Your task to perform on an android device: empty trash in google photos Image 0: 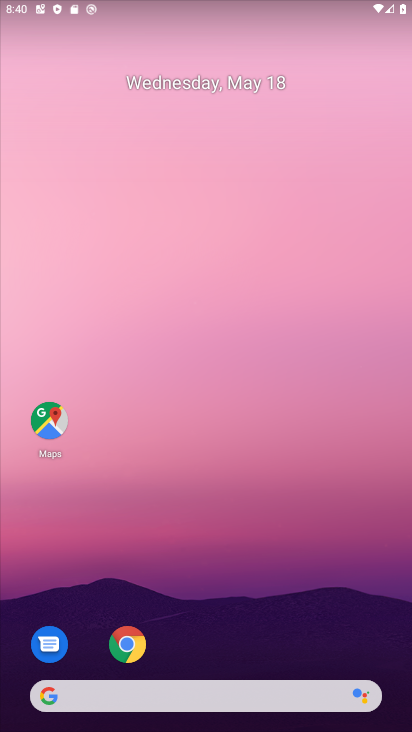
Step 0: drag from (191, 400) to (237, 59)
Your task to perform on an android device: empty trash in google photos Image 1: 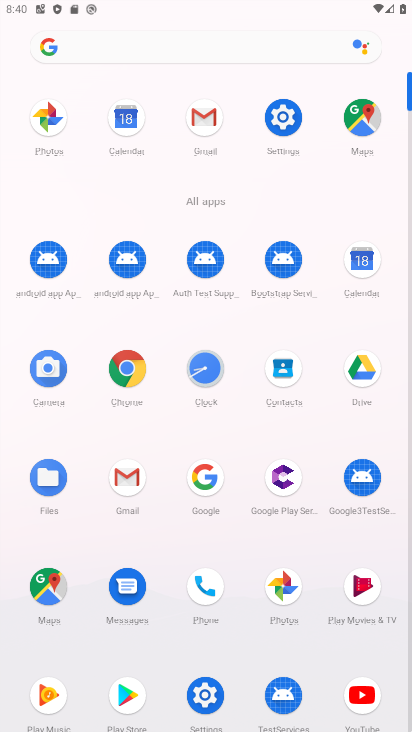
Step 1: click (55, 118)
Your task to perform on an android device: empty trash in google photos Image 2: 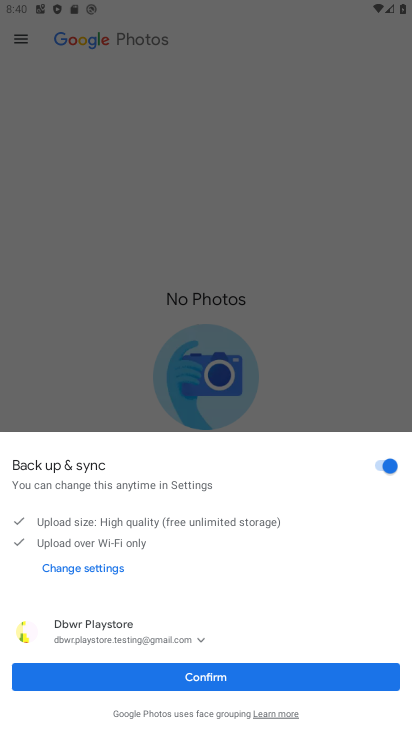
Step 2: click (177, 671)
Your task to perform on an android device: empty trash in google photos Image 3: 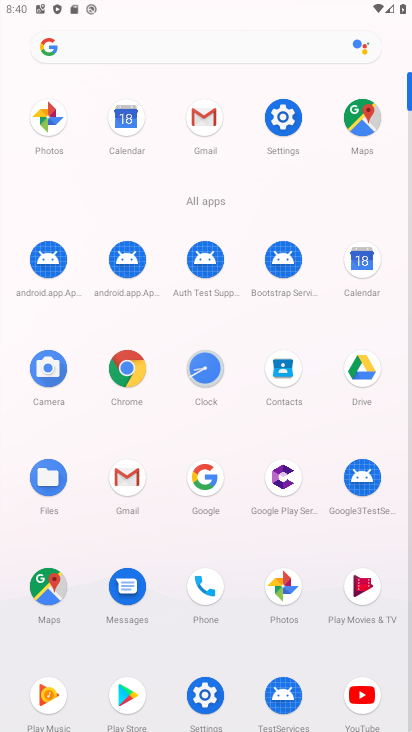
Step 3: click (47, 128)
Your task to perform on an android device: empty trash in google photos Image 4: 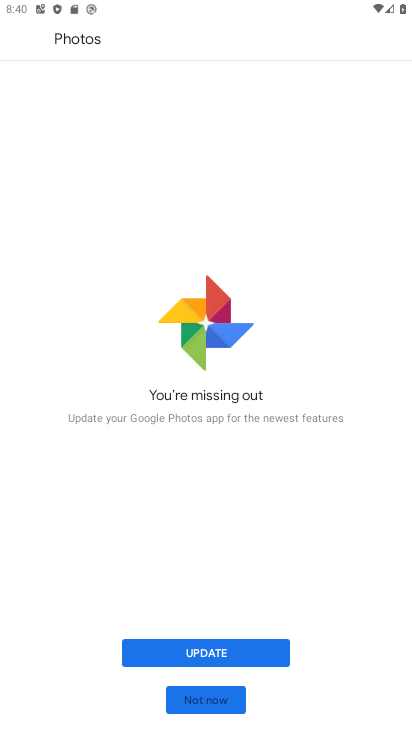
Step 4: click (216, 647)
Your task to perform on an android device: empty trash in google photos Image 5: 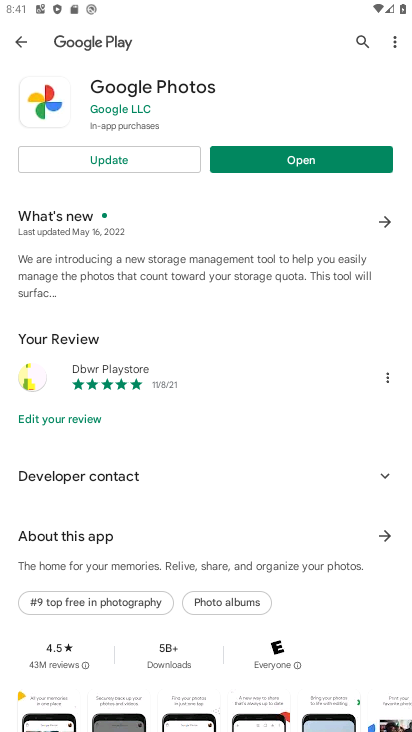
Step 5: click (143, 158)
Your task to perform on an android device: empty trash in google photos Image 6: 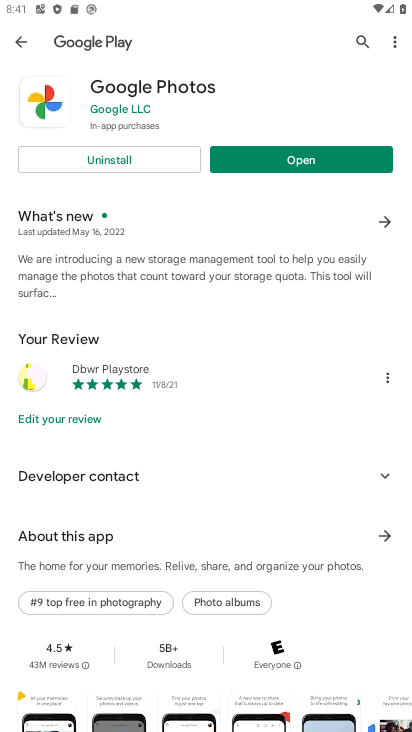
Step 6: click (273, 162)
Your task to perform on an android device: empty trash in google photos Image 7: 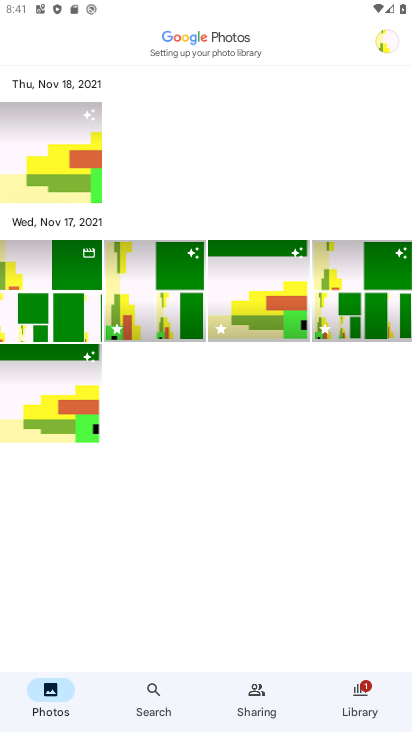
Step 7: click (19, 44)
Your task to perform on an android device: empty trash in google photos Image 8: 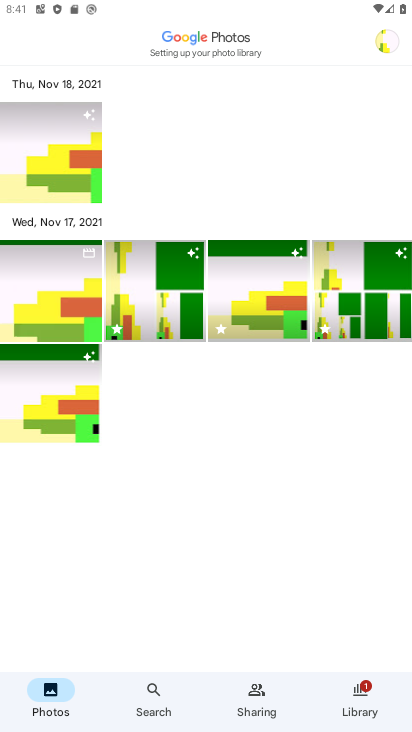
Step 8: click (19, 44)
Your task to perform on an android device: empty trash in google photos Image 9: 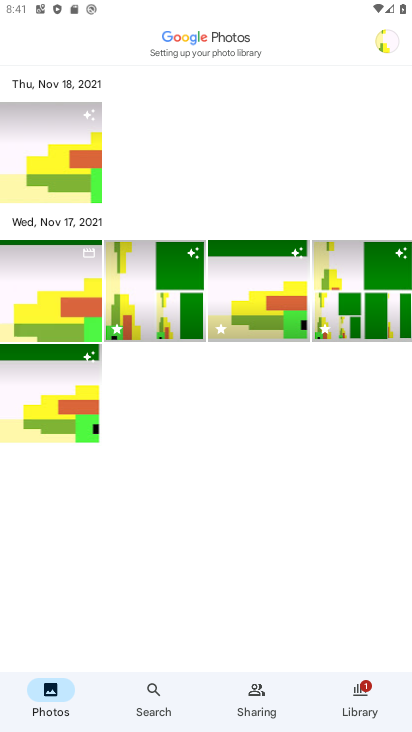
Step 9: click (19, 44)
Your task to perform on an android device: empty trash in google photos Image 10: 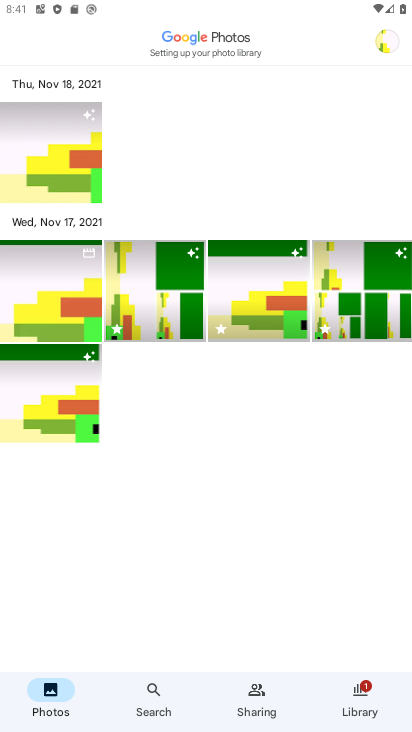
Step 10: click (19, 44)
Your task to perform on an android device: empty trash in google photos Image 11: 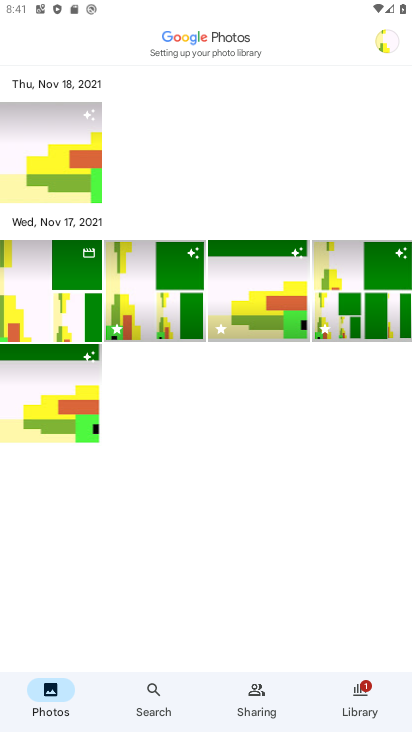
Step 11: task complete